Your task to perform on an android device: turn notification dots on Image 0: 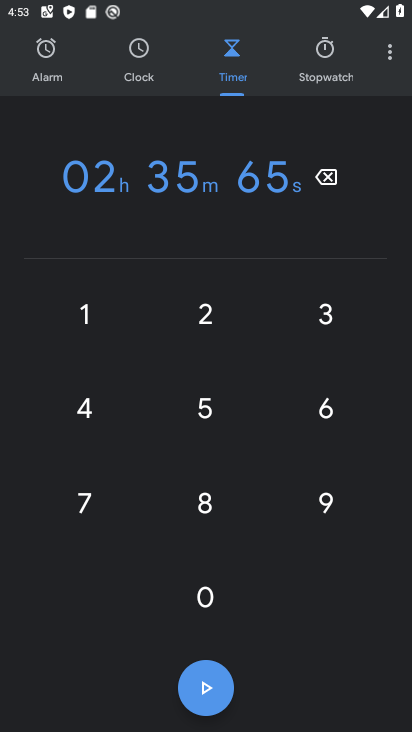
Step 0: press home button
Your task to perform on an android device: turn notification dots on Image 1: 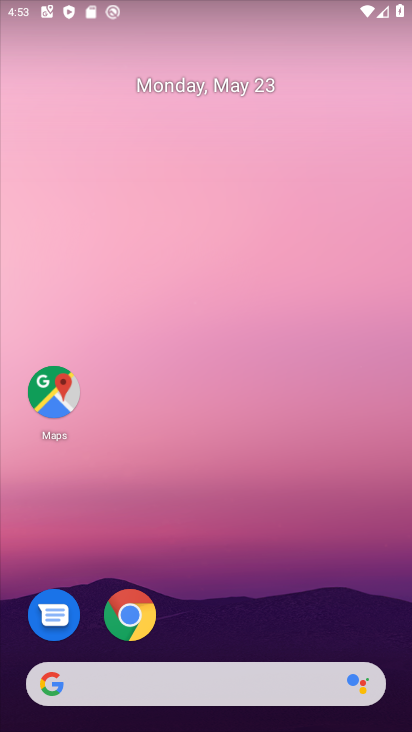
Step 1: drag from (193, 611) to (271, 12)
Your task to perform on an android device: turn notification dots on Image 2: 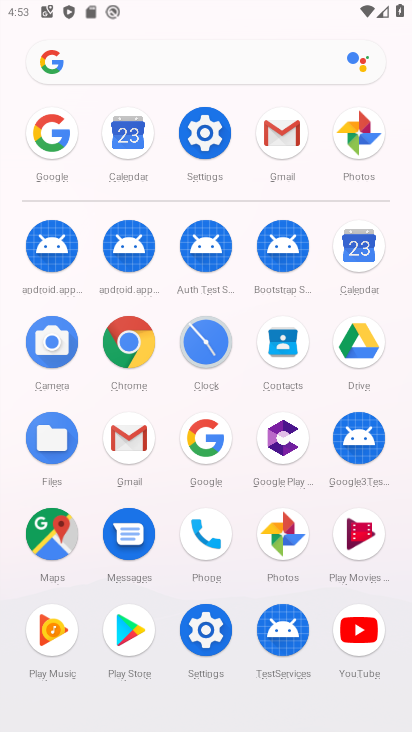
Step 2: click (203, 117)
Your task to perform on an android device: turn notification dots on Image 3: 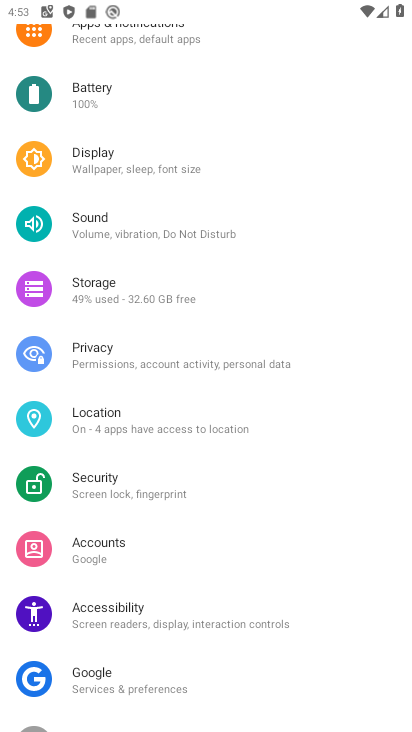
Step 3: drag from (200, 162) to (188, 653)
Your task to perform on an android device: turn notification dots on Image 4: 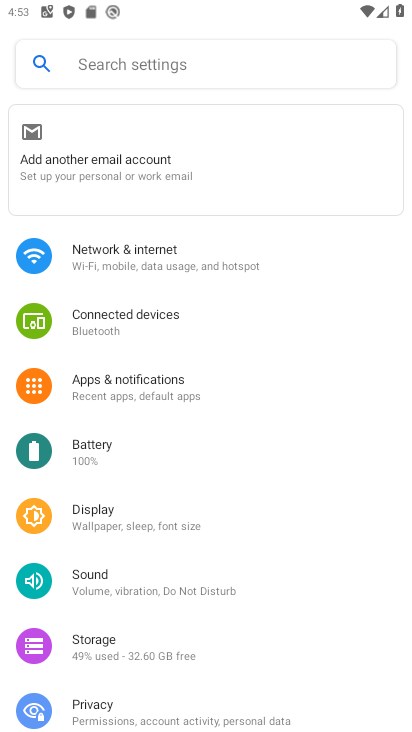
Step 4: click (134, 392)
Your task to perform on an android device: turn notification dots on Image 5: 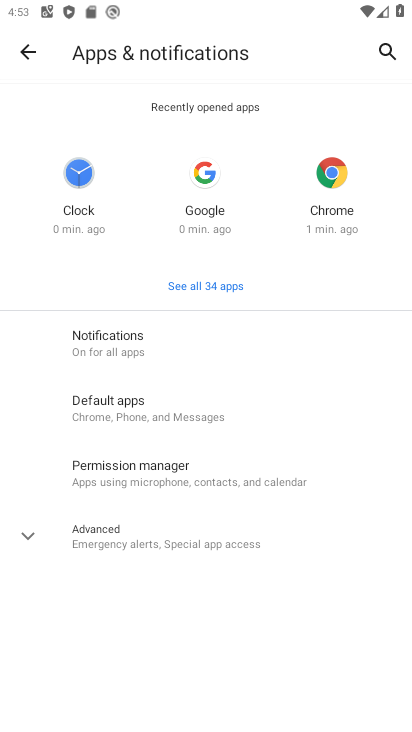
Step 5: click (118, 337)
Your task to perform on an android device: turn notification dots on Image 6: 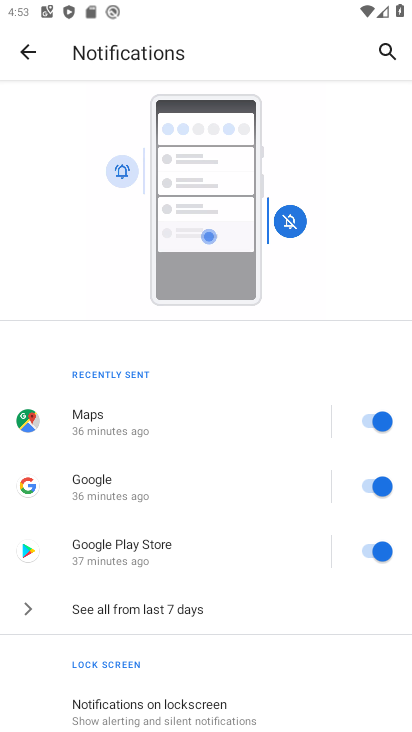
Step 6: drag from (199, 608) to (263, 146)
Your task to perform on an android device: turn notification dots on Image 7: 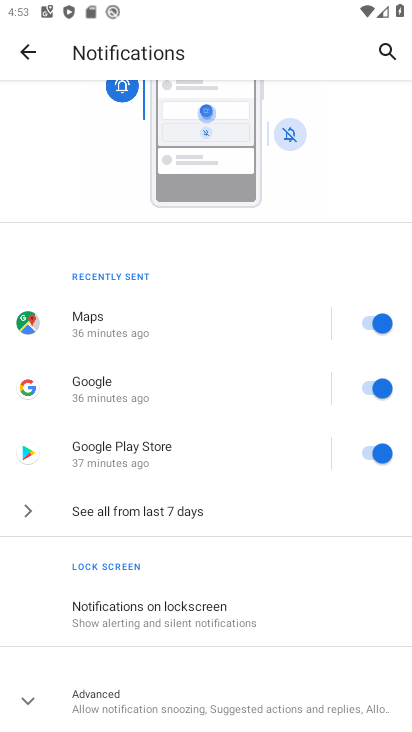
Step 7: click (166, 710)
Your task to perform on an android device: turn notification dots on Image 8: 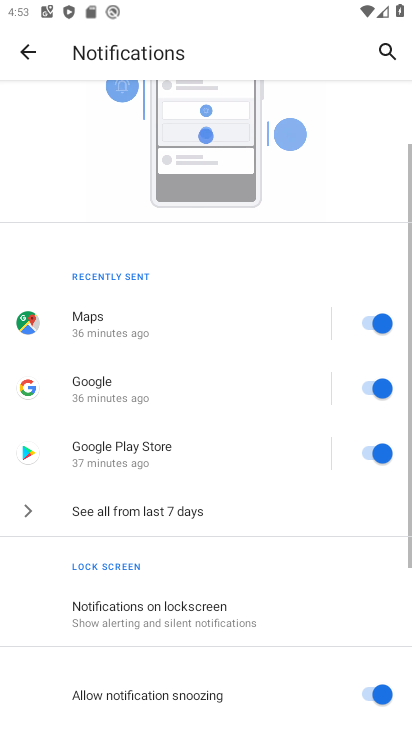
Step 8: drag from (181, 671) to (219, 116)
Your task to perform on an android device: turn notification dots on Image 9: 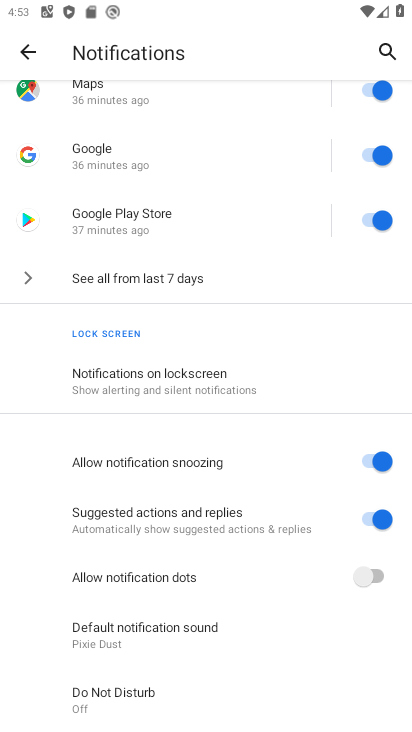
Step 9: click (369, 579)
Your task to perform on an android device: turn notification dots on Image 10: 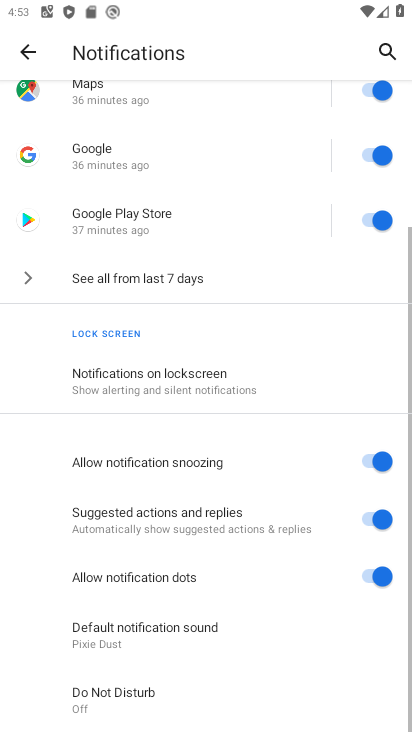
Step 10: task complete